Your task to perform on an android device: toggle data saver in the chrome app Image 0: 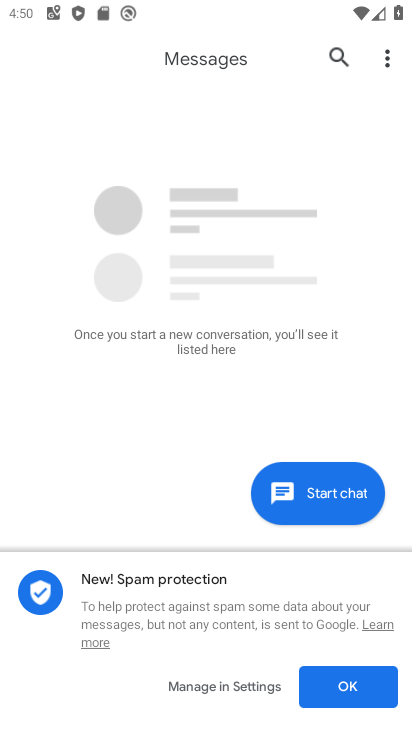
Step 0: press home button
Your task to perform on an android device: toggle data saver in the chrome app Image 1: 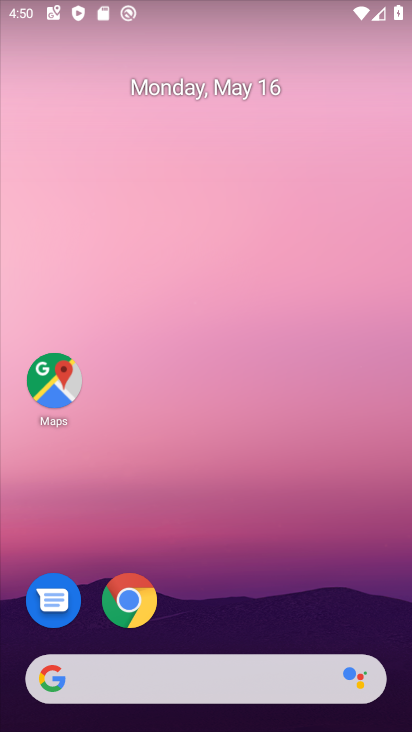
Step 1: click (135, 603)
Your task to perform on an android device: toggle data saver in the chrome app Image 2: 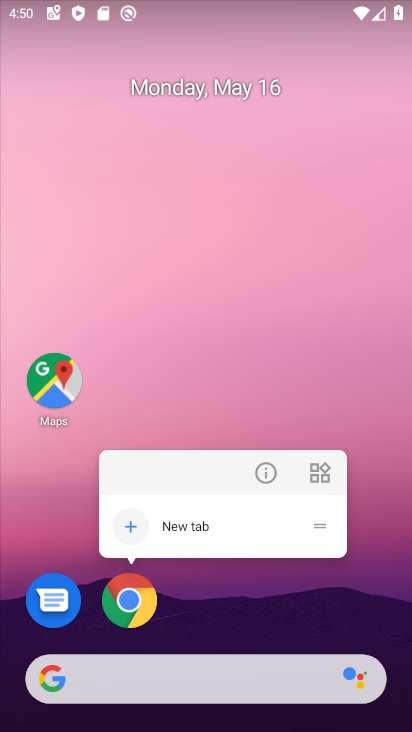
Step 2: click (123, 599)
Your task to perform on an android device: toggle data saver in the chrome app Image 3: 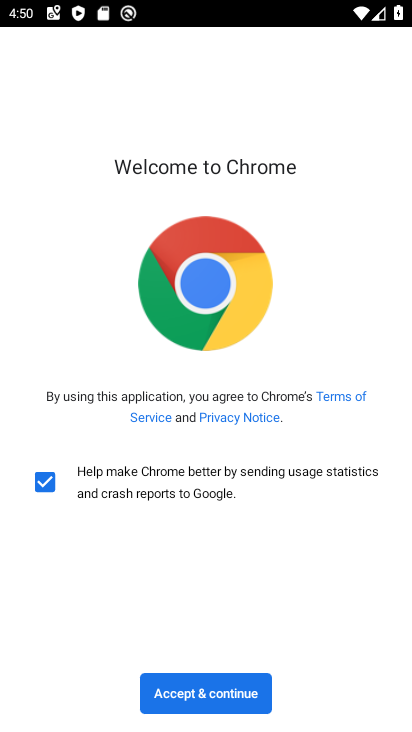
Step 3: click (178, 653)
Your task to perform on an android device: toggle data saver in the chrome app Image 4: 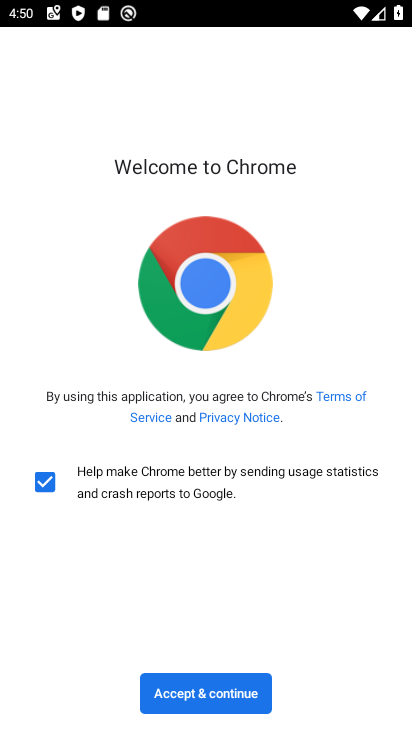
Step 4: click (197, 684)
Your task to perform on an android device: toggle data saver in the chrome app Image 5: 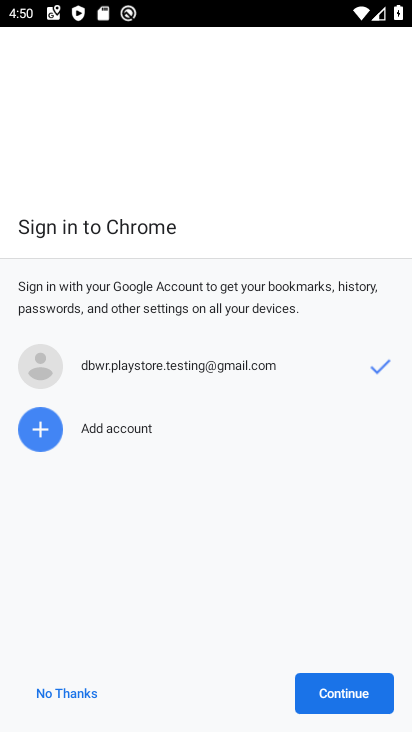
Step 5: click (354, 692)
Your task to perform on an android device: toggle data saver in the chrome app Image 6: 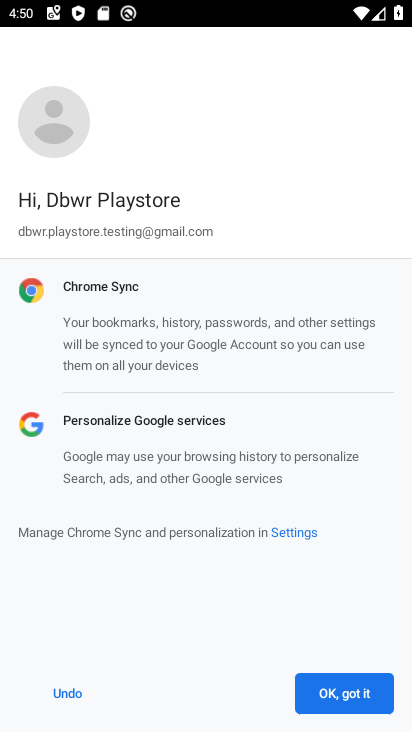
Step 6: click (342, 696)
Your task to perform on an android device: toggle data saver in the chrome app Image 7: 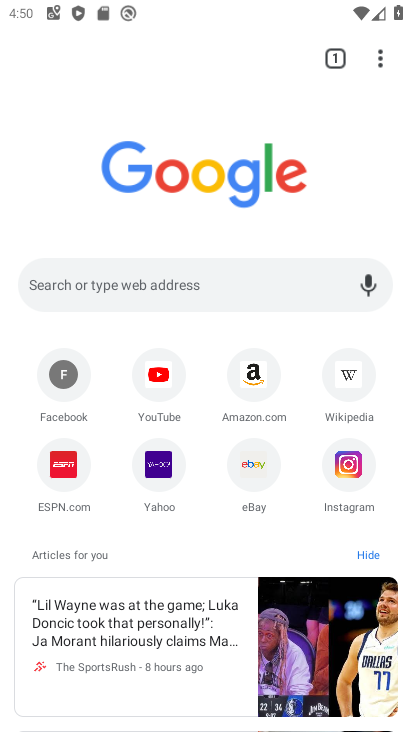
Step 7: click (376, 59)
Your task to perform on an android device: toggle data saver in the chrome app Image 8: 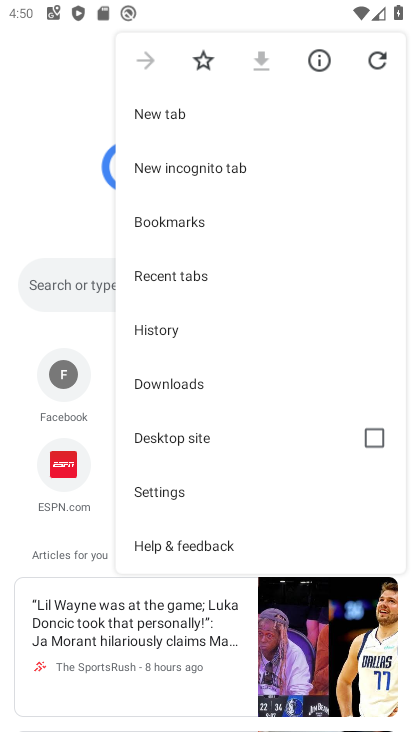
Step 8: click (181, 498)
Your task to perform on an android device: toggle data saver in the chrome app Image 9: 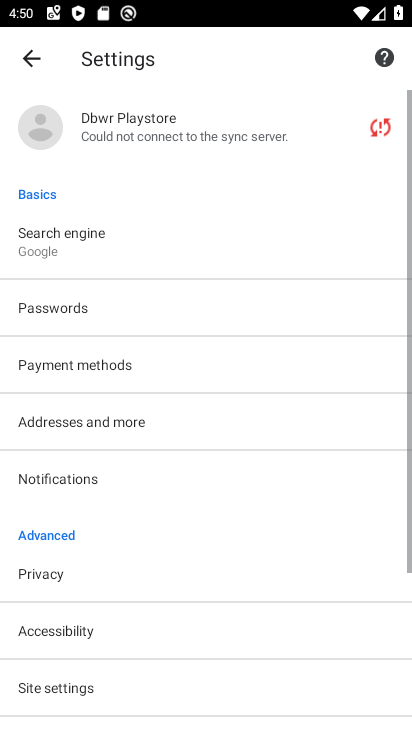
Step 9: drag from (179, 592) to (146, 288)
Your task to perform on an android device: toggle data saver in the chrome app Image 10: 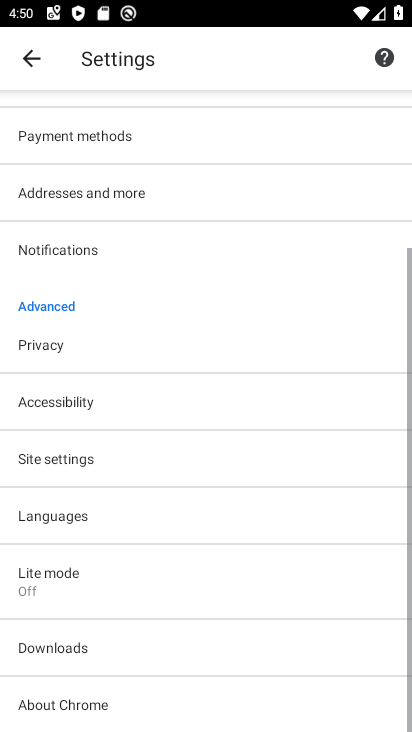
Step 10: click (86, 563)
Your task to perform on an android device: toggle data saver in the chrome app Image 11: 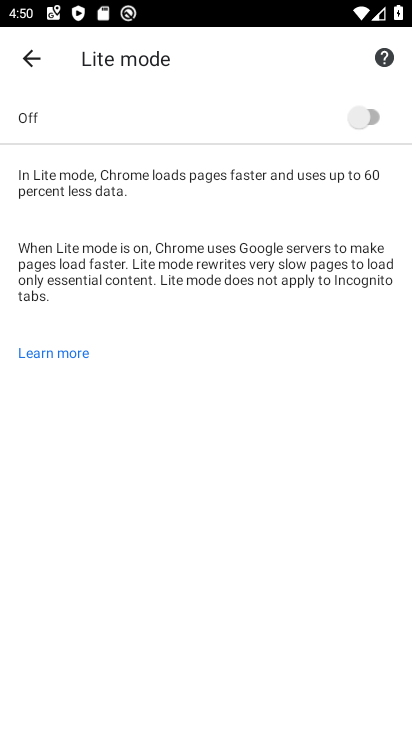
Step 11: click (349, 120)
Your task to perform on an android device: toggle data saver in the chrome app Image 12: 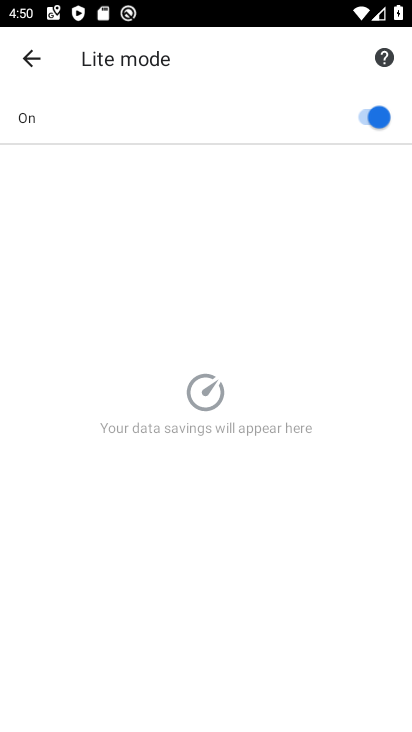
Step 12: task complete